Your task to perform on an android device: toggle translation in the chrome app Image 0: 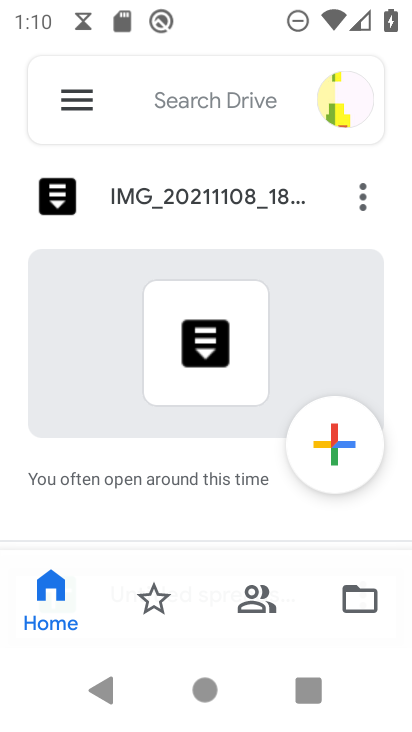
Step 0: press home button
Your task to perform on an android device: toggle translation in the chrome app Image 1: 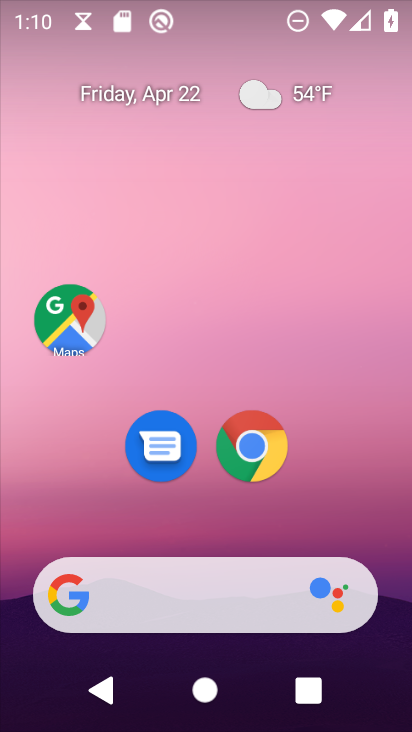
Step 1: drag from (381, 532) to (311, 176)
Your task to perform on an android device: toggle translation in the chrome app Image 2: 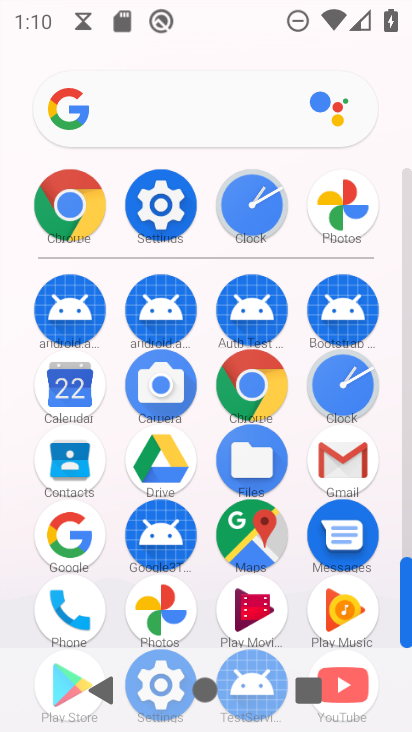
Step 2: click (74, 207)
Your task to perform on an android device: toggle translation in the chrome app Image 3: 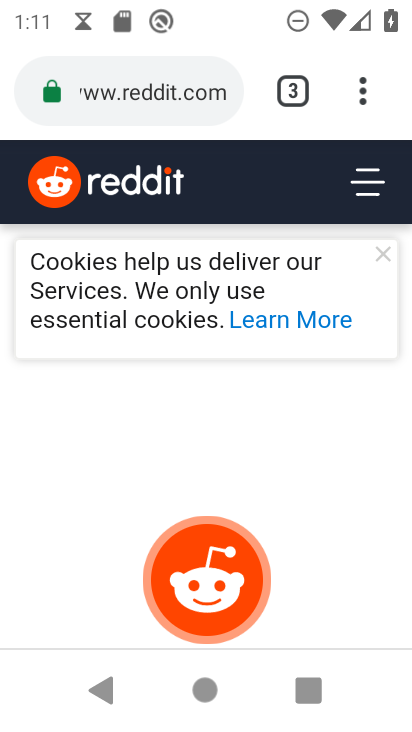
Step 3: click (368, 84)
Your task to perform on an android device: toggle translation in the chrome app Image 4: 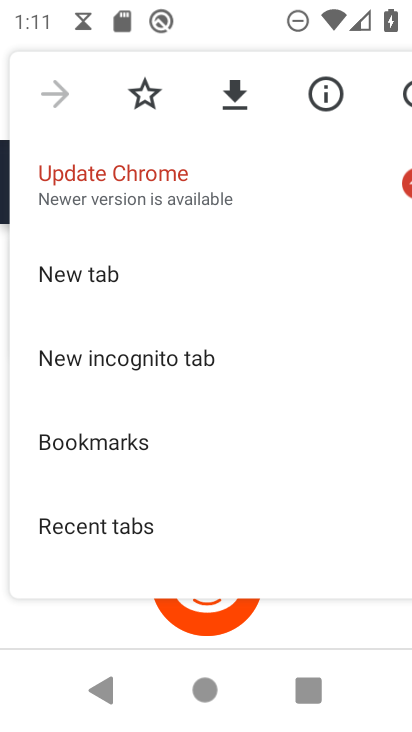
Step 4: drag from (298, 490) to (286, 148)
Your task to perform on an android device: toggle translation in the chrome app Image 5: 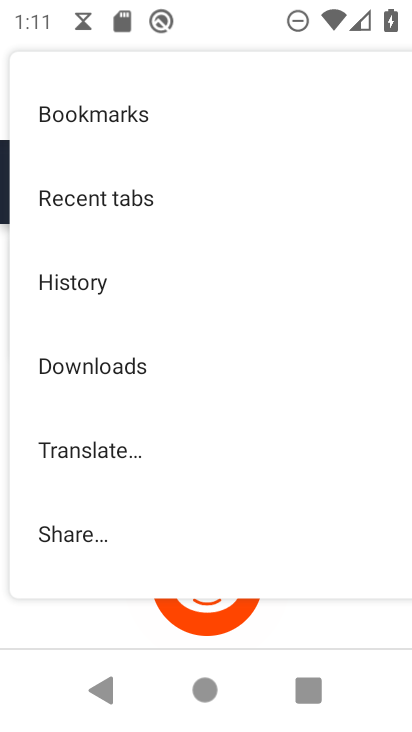
Step 5: drag from (244, 479) to (223, 141)
Your task to perform on an android device: toggle translation in the chrome app Image 6: 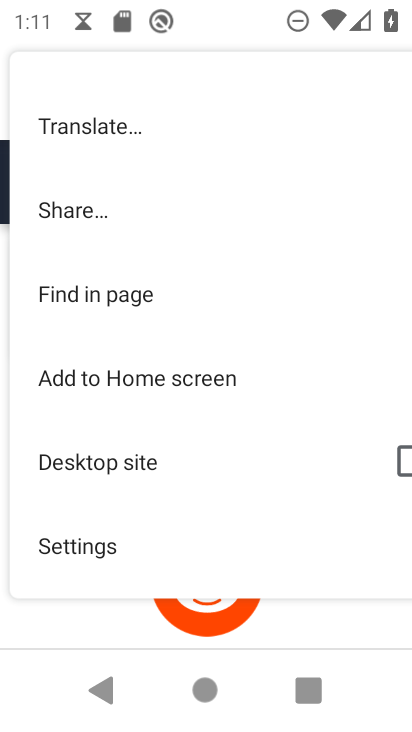
Step 6: click (188, 543)
Your task to perform on an android device: toggle translation in the chrome app Image 7: 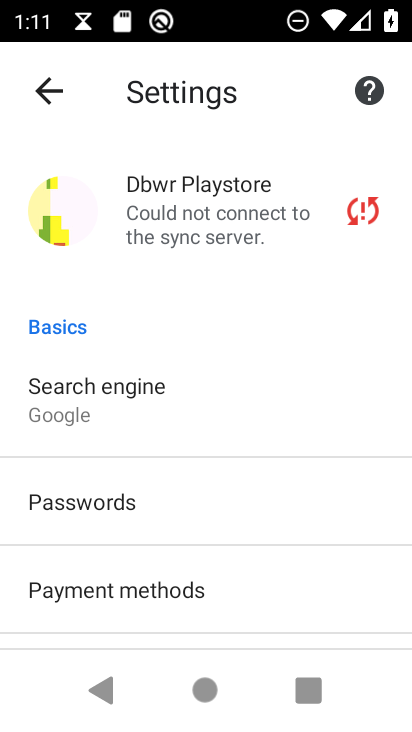
Step 7: drag from (259, 610) to (239, 237)
Your task to perform on an android device: toggle translation in the chrome app Image 8: 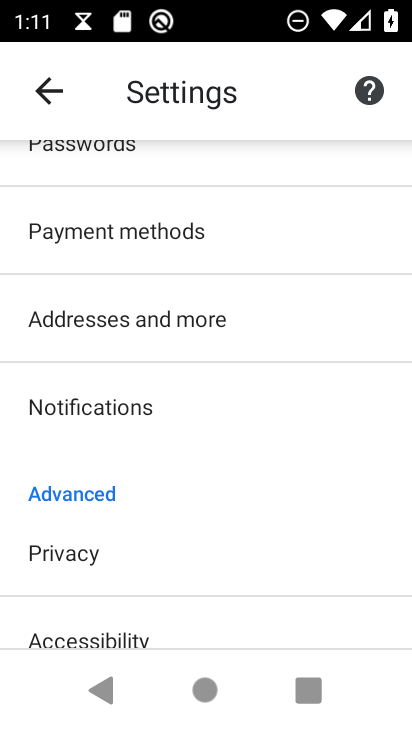
Step 8: drag from (296, 464) to (236, 123)
Your task to perform on an android device: toggle translation in the chrome app Image 9: 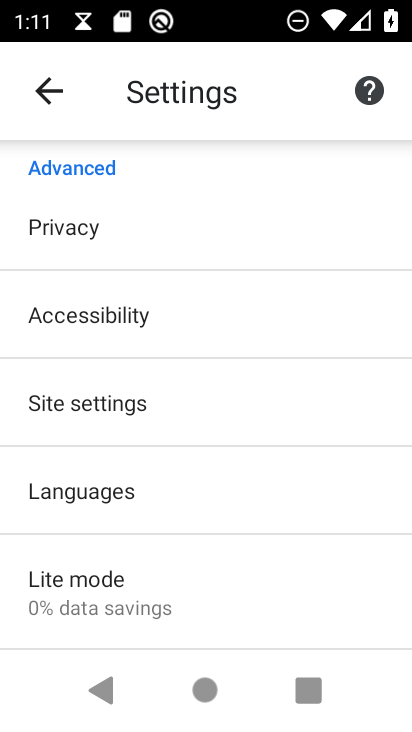
Step 9: click (283, 469)
Your task to perform on an android device: toggle translation in the chrome app Image 10: 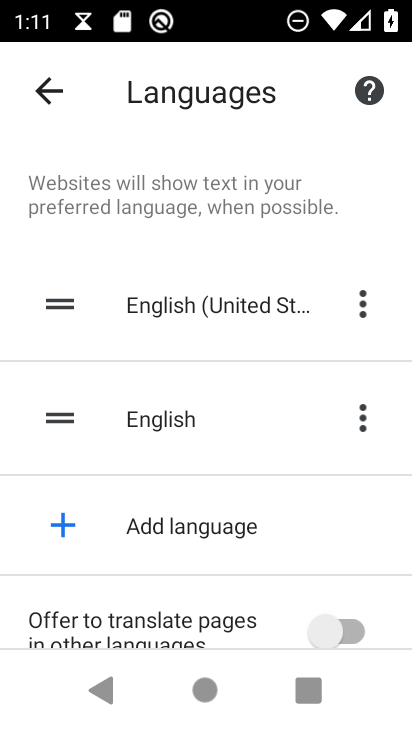
Step 10: click (330, 640)
Your task to perform on an android device: toggle translation in the chrome app Image 11: 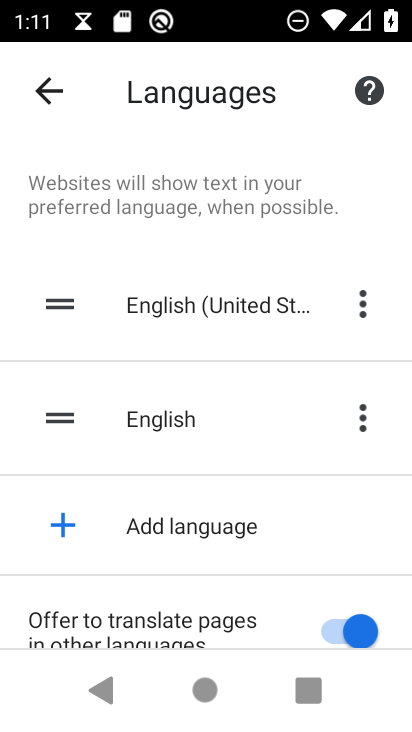
Step 11: task complete